Your task to perform on an android device: Set the phone to "Do not disturb". Image 0: 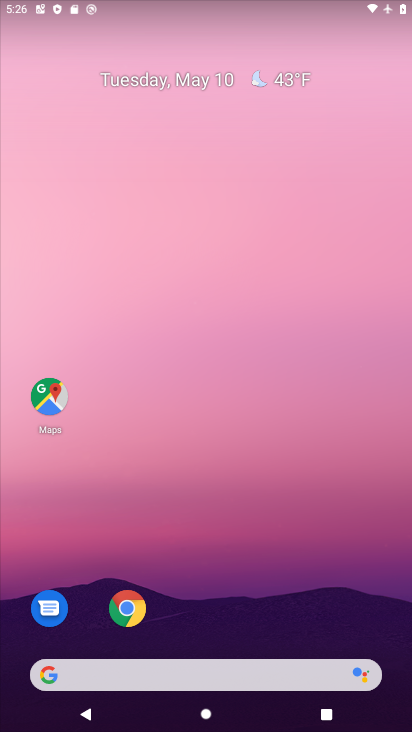
Step 0: drag from (174, 33) to (192, 681)
Your task to perform on an android device: Set the phone to "Do not disturb". Image 1: 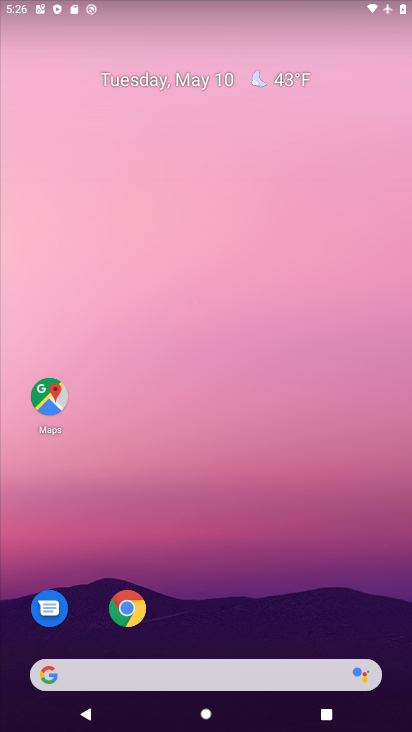
Step 1: drag from (214, 2) to (229, 613)
Your task to perform on an android device: Set the phone to "Do not disturb". Image 2: 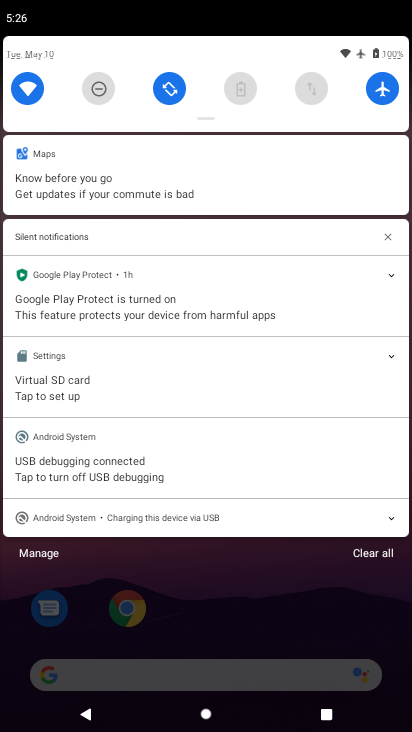
Step 2: click (98, 84)
Your task to perform on an android device: Set the phone to "Do not disturb". Image 3: 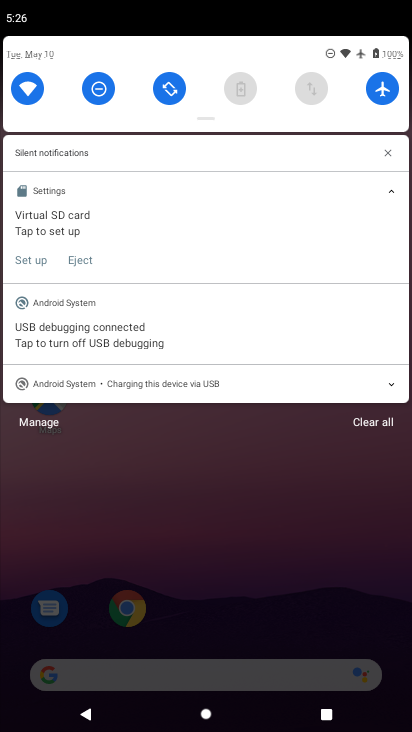
Step 3: task complete